Your task to perform on an android device: open wifi settings Image 0: 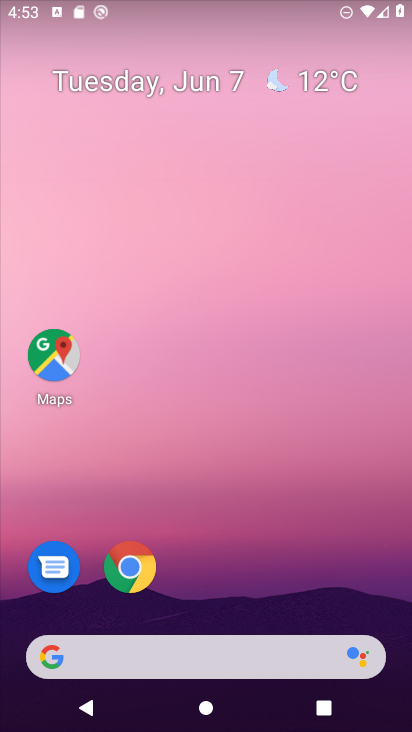
Step 0: drag from (238, 639) to (317, 12)
Your task to perform on an android device: open wifi settings Image 1: 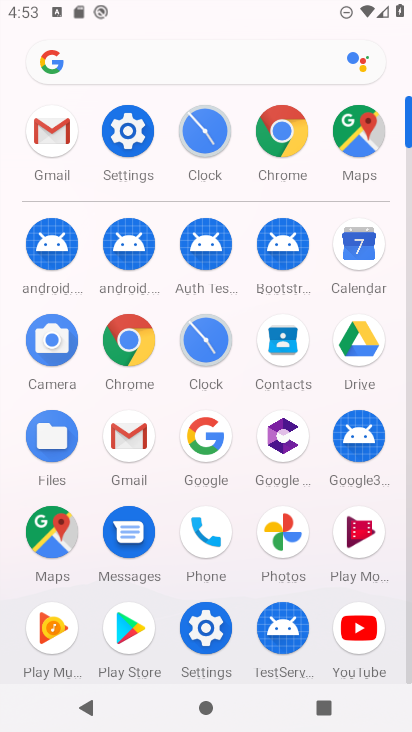
Step 1: click (139, 154)
Your task to perform on an android device: open wifi settings Image 2: 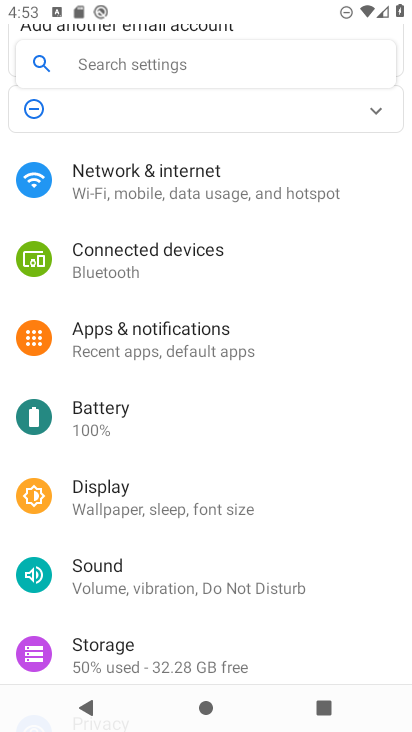
Step 2: click (258, 182)
Your task to perform on an android device: open wifi settings Image 3: 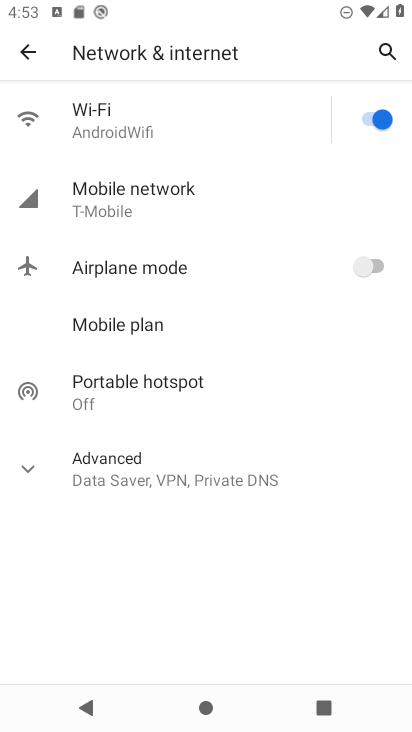
Step 3: click (132, 134)
Your task to perform on an android device: open wifi settings Image 4: 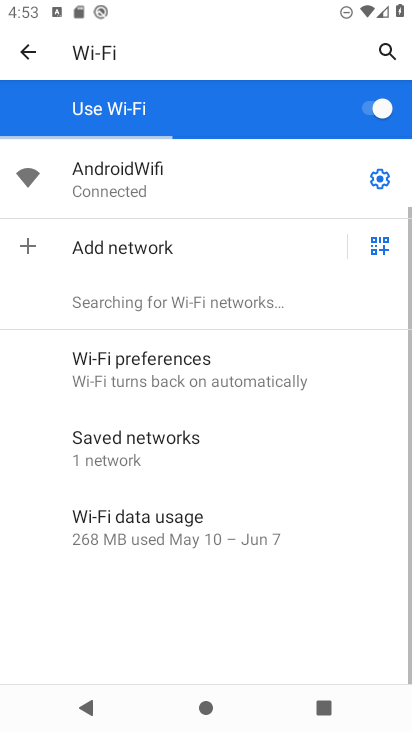
Step 4: task complete